Your task to perform on an android device: Open battery settings Image 0: 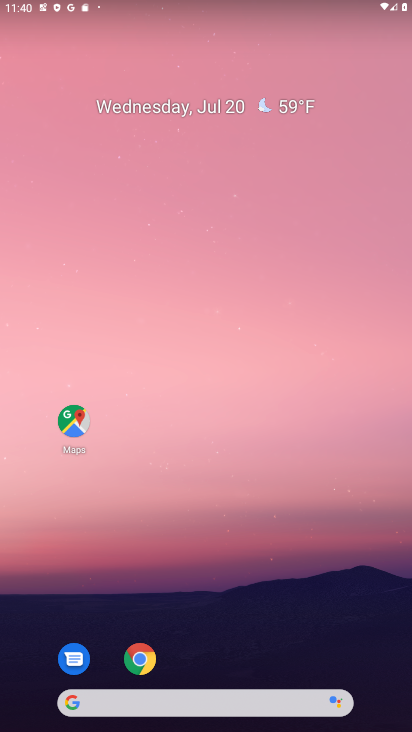
Step 0: drag from (20, 665) to (273, 166)
Your task to perform on an android device: Open battery settings Image 1: 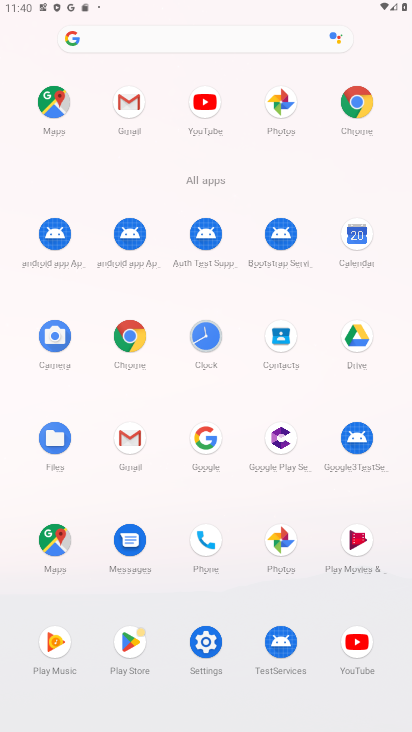
Step 1: click (194, 642)
Your task to perform on an android device: Open battery settings Image 2: 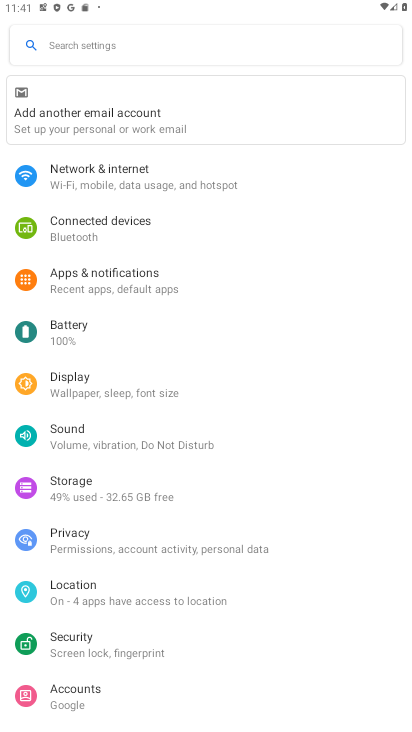
Step 2: click (84, 333)
Your task to perform on an android device: Open battery settings Image 3: 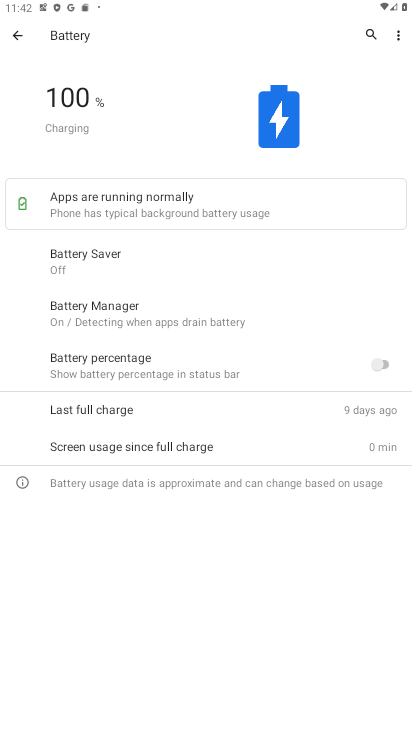
Step 3: task complete